Your task to perform on an android device: Go to sound settings Image 0: 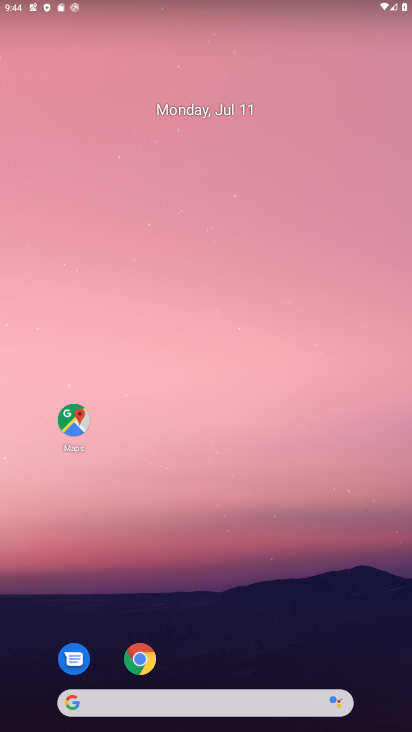
Step 0: drag from (334, 665) to (377, 0)
Your task to perform on an android device: Go to sound settings Image 1: 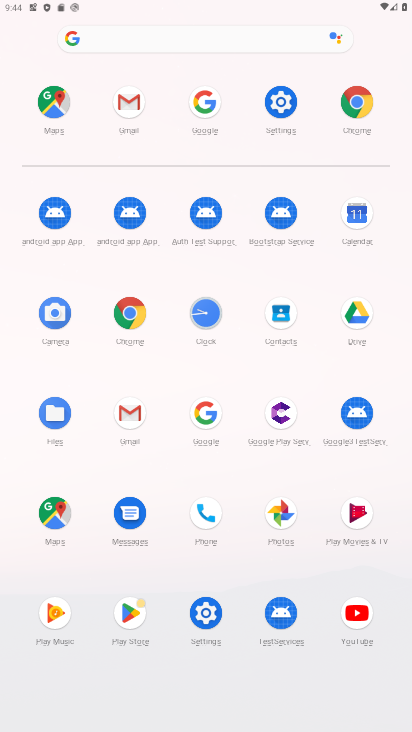
Step 1: click (282, 105)
Your task to perform on an android device: Go to sound settings Image 2: 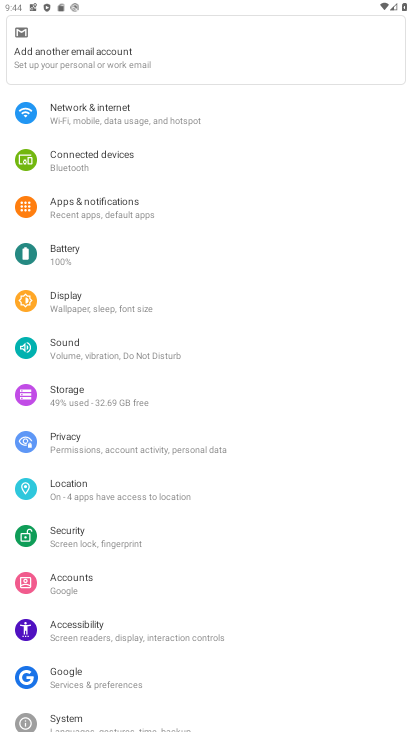
Step 2: click (66, 346)
Your task to perform on an android device: Go to sound settings Image 3: 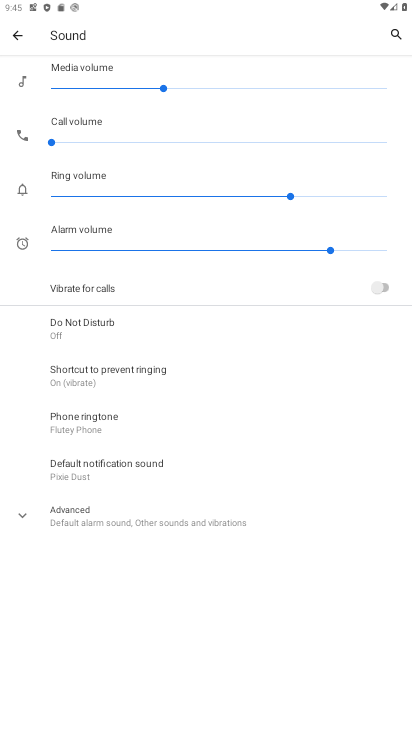
Step 3: task complete